Your task to perform on an android device: Open the Play Movies app and select the watchlist tab. Image 0: 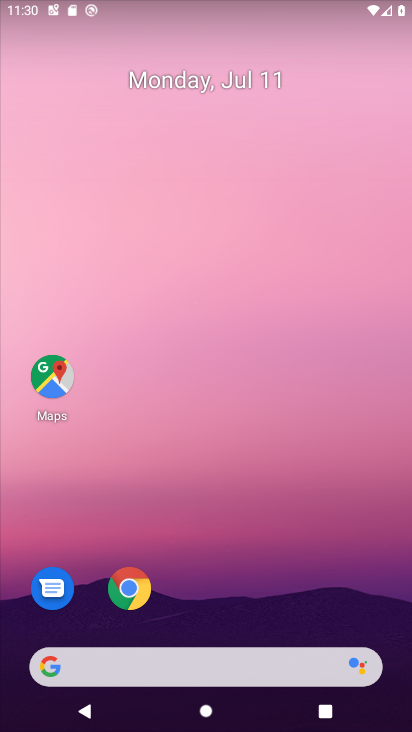
Step 0: drag from (245, 657) to (186, 134)
Your task to perform on an android device: Open the Play Movies app and select the watchlist tab. Image 1: 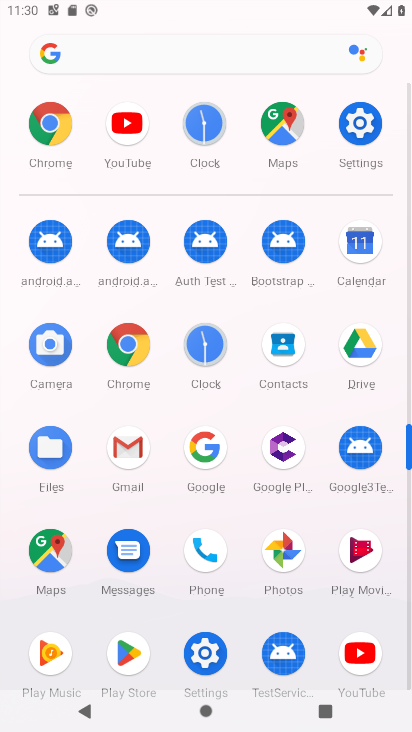
Step 1: click (363, 557)
Your task to perform on an android device: Open the Play Movies app and select the watchlist tab. Image 2: 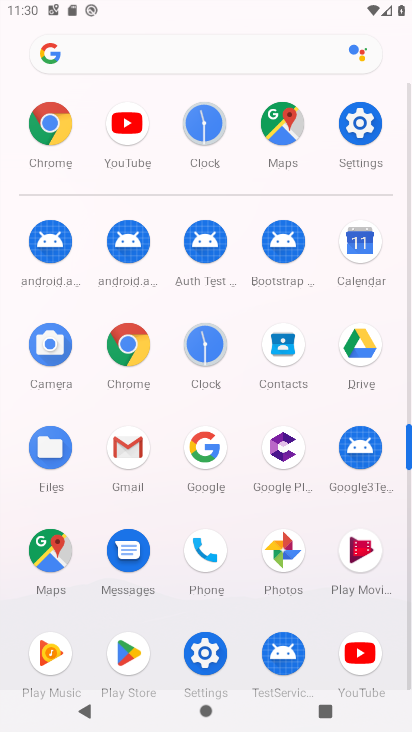
Step 2: click (360, 552)
Your task to perform on an android device: Open the Play Movies app and select the watchlist tab. Image 3: 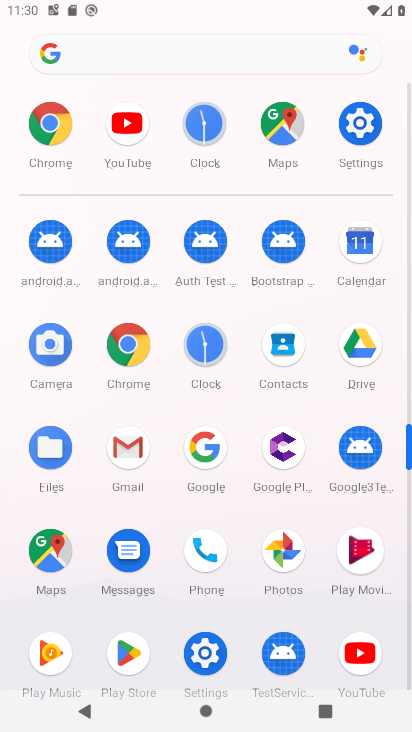
Step 3: click (360, 548)
Your task to perform on an android device: Open the Play Movies app and select the watchlist tab. Image 4: 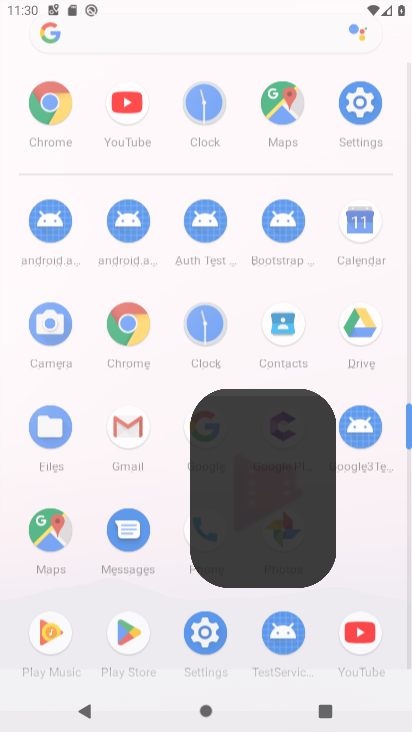
Step 4: click (354, 545)
Your task to perform on an android device: Open the Play Movies app and select the watchlist tab. Image 5: 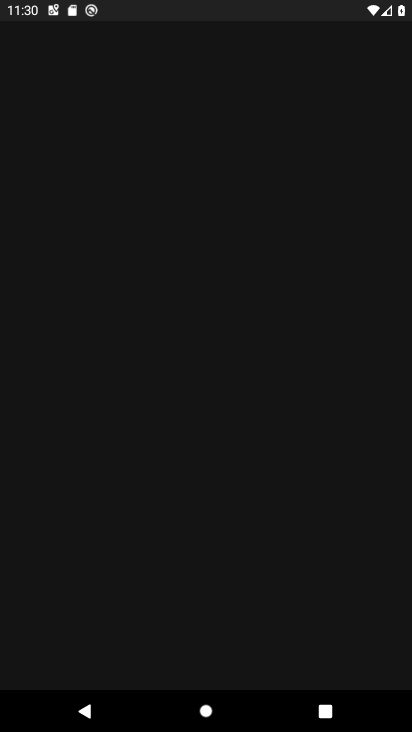
Step 5: click (354, 545)
Your task to perform on an android device: Open the Play Movies app and select the watchlist tab. Image 6: 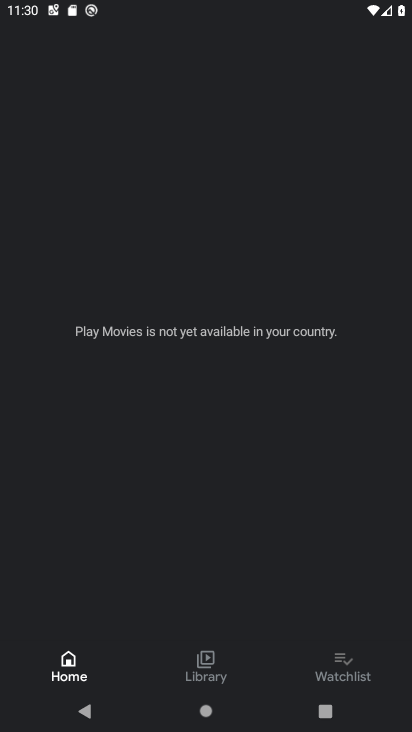
Step 6: click (342, 674)
Your task to perform on an android device: Open the Play Movies app and select the watchlist tab. Image 7: 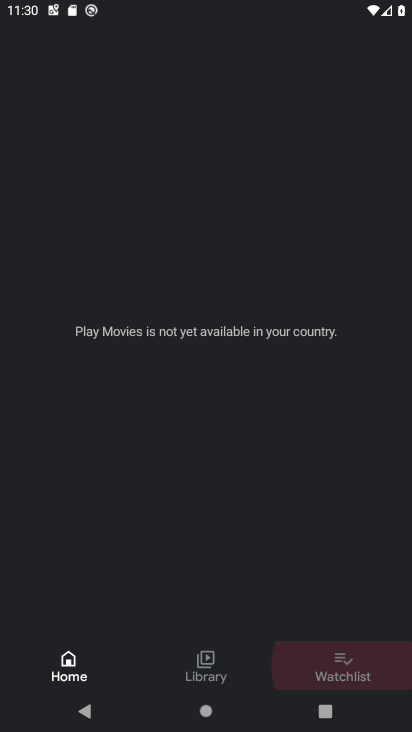
Step 7: click (342, 674)
Your task to perform on an android device: Open the Play Movies app and select the watchlist tab. Image 8: 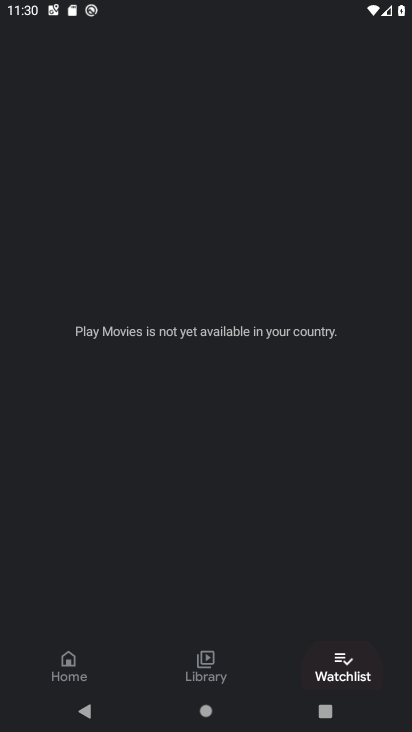
Step 8: click (342, 674)
Your task to perform on an android device: Open the Play Movies app and select the watchlist tab. Image 9: 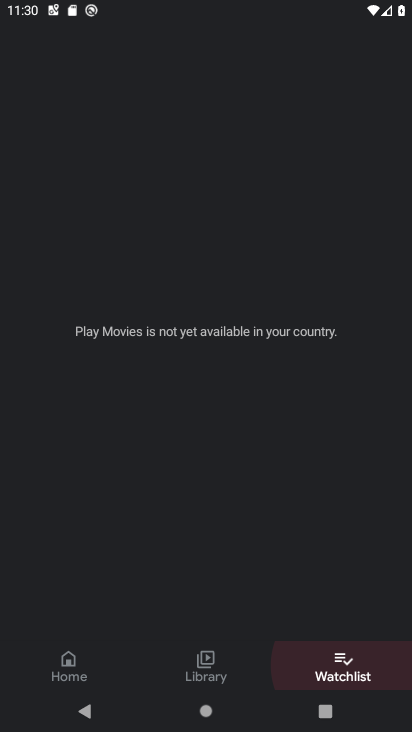
Step 9: click (342, 674)
Your task to perform on an android device: Open the Play Movies app and select the watchlist tab. Image 10: 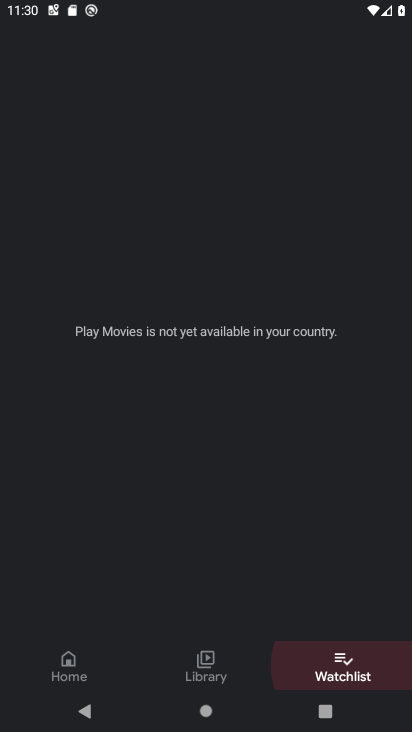
Step 10: click (344, 672)
Your task to perform on an android device: Open the Play Movies app and select the watchlist tab. Image 11: 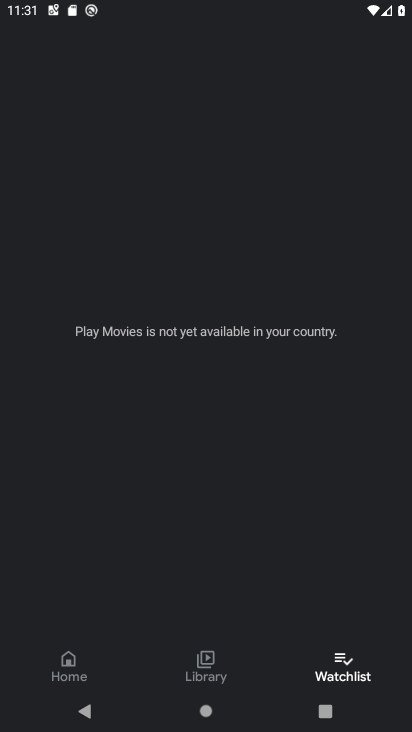
Step 11: click (343, 645)
Your task to perform on an android device: Open the Play Movies app and select the watchlist tab. Image 12: 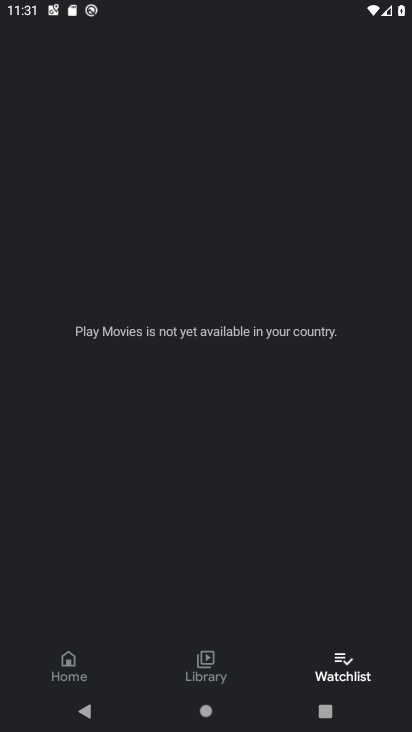
Step 12: click (343, 645)
Your task to perform on an android device: Open the Play Movies app and select the watchlist tab. Image 13: 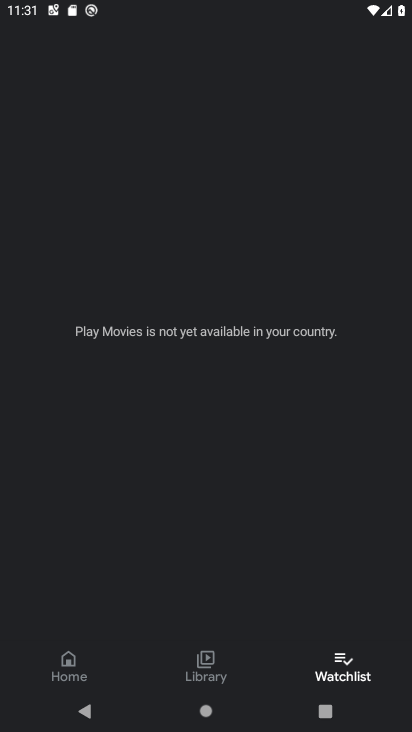
Step 13: click (343, 645)
Your task to perform on an android device: Open the Play Movies app and select the watchlist tab. Image 14: 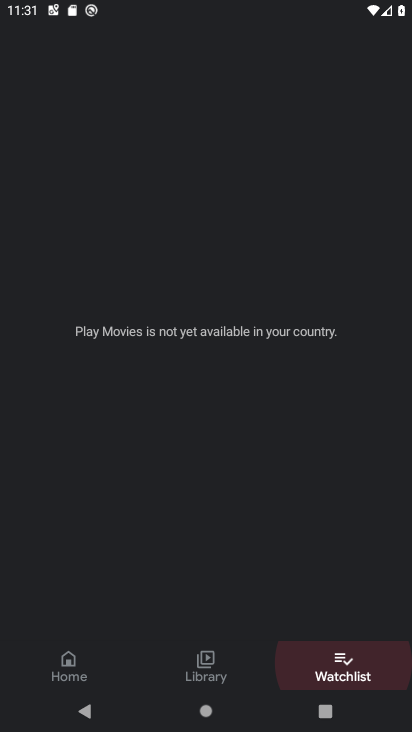
Step 14: click (343, 645)
Your task to perform on an android device: Open the Play Movies app and select the watchlist tab. Image 15: 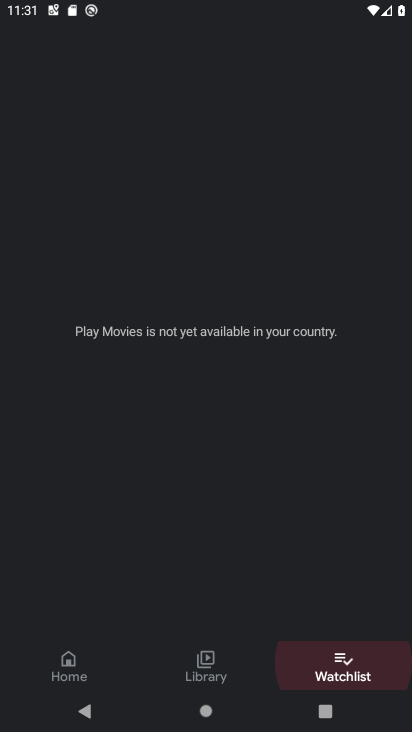
Step 15: click (344, 646)
Your task to perform on an android device: Open the Play Movies app and select the watchlist tab. Image 16: 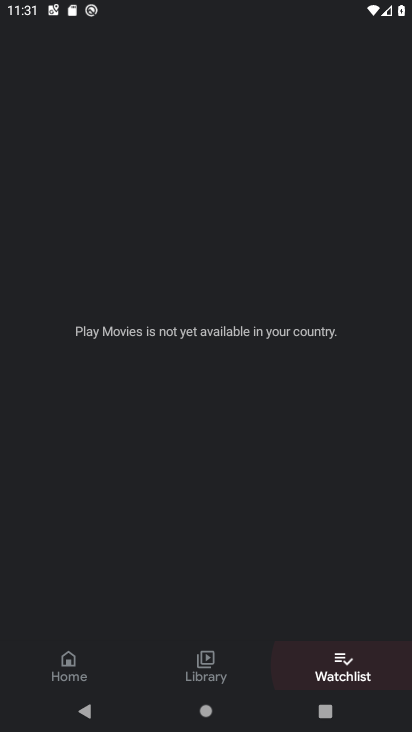
Step 16: click (344, 646)
Your task to perform on an android device: Open the Play Movies app and select the watchlist tab. Image 17: 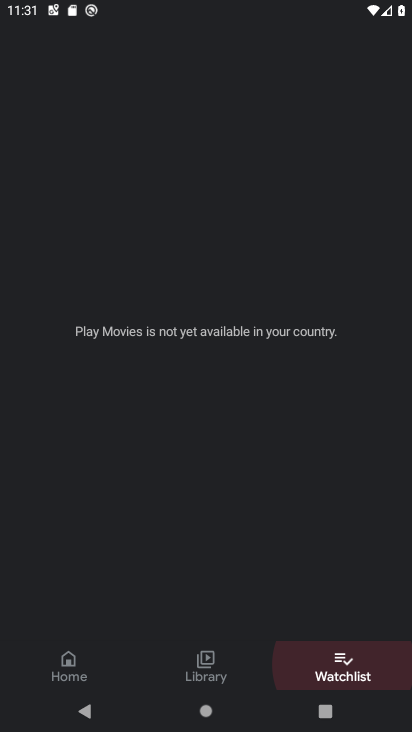
Step 17: click (344, 646)
Your task to perform on an android device: Open the Play Movies app and select the watchlist tab. Image 18: 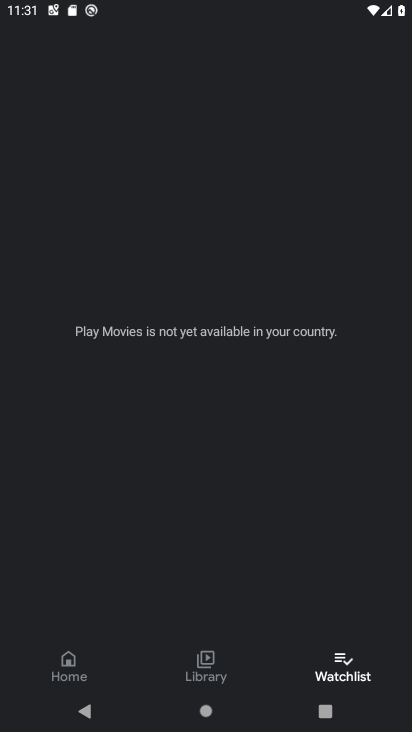
Step 18: task complete